Your task to perform on an android device: Go to Google maps Image 0: 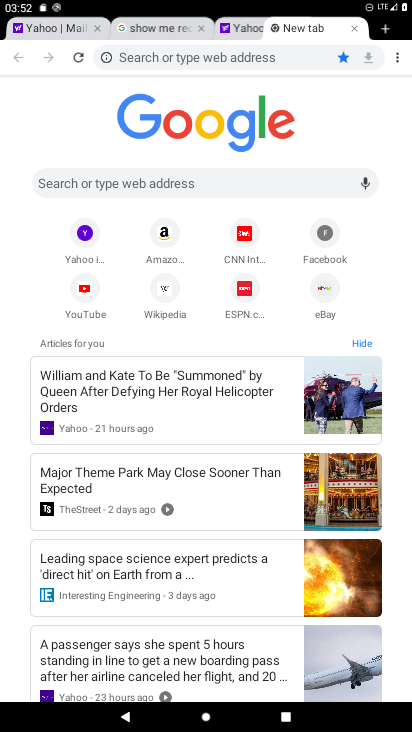
Step 0: press home button
Your task to perform on an android device: Go to Google maps Image 1: 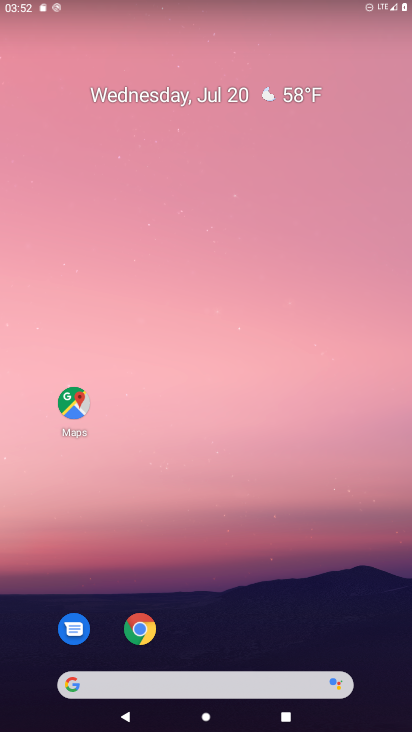
Step 1: drag from (266, 603) to (250, 180)
Your task to perform on an android device: Go to Google maps Image 2: 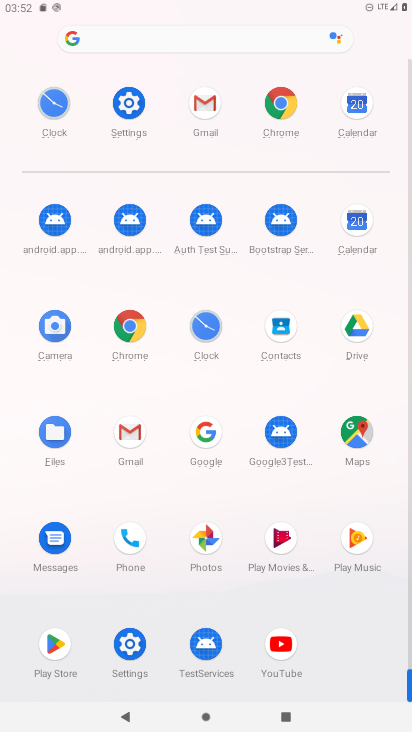
Step 2: click (198, 414)
Your task to perform on an android device: Go to Google maps Image 3: 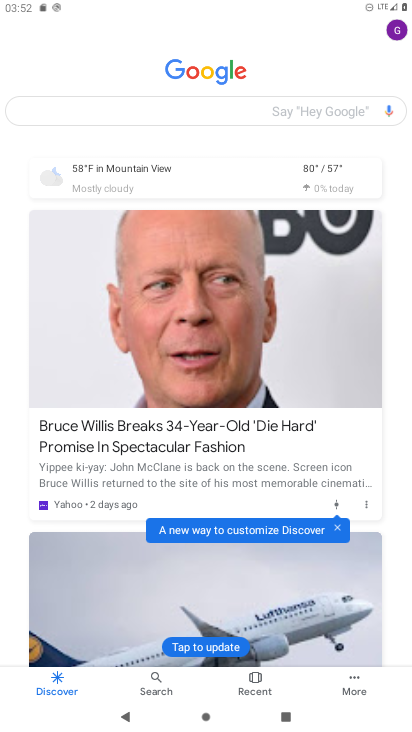
Step 3: press home button
Your task to perform on an android device: Go to Google maps Image 4: 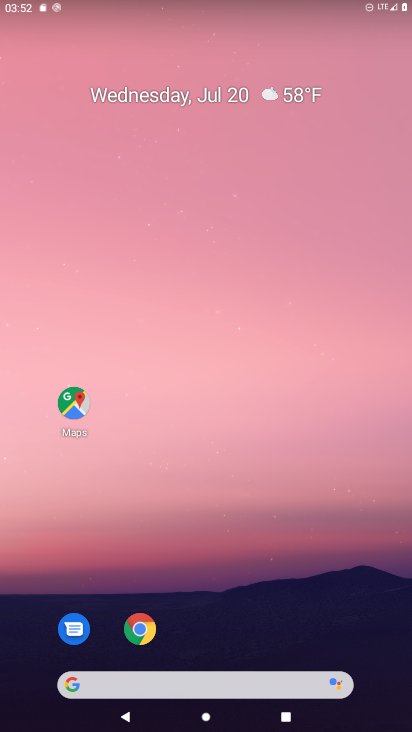
Step 4: drag from (285, 549) to (205, 1)
Your task to perform on an android device: Go to Google maps Image 5: 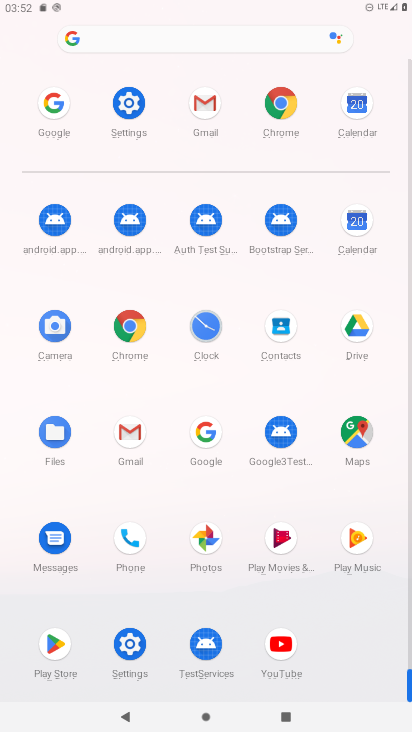
Step 5: click (359, 425)
Your task to perform on an android device: Go to Google maps Image 6: 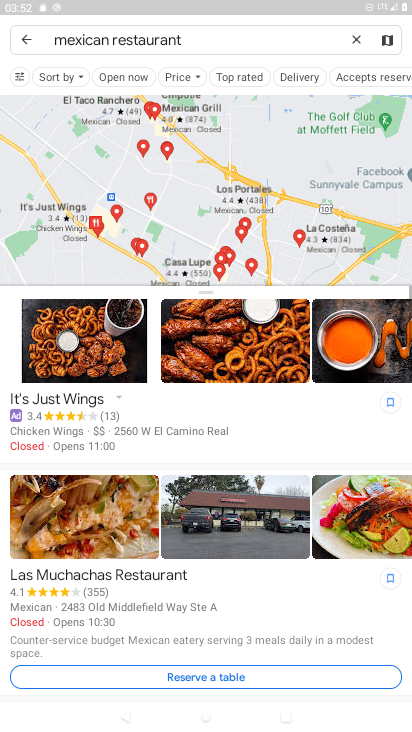
Step 6: click (23, 36)
Your task to perform on an android device: Go to Google maps Image 7: 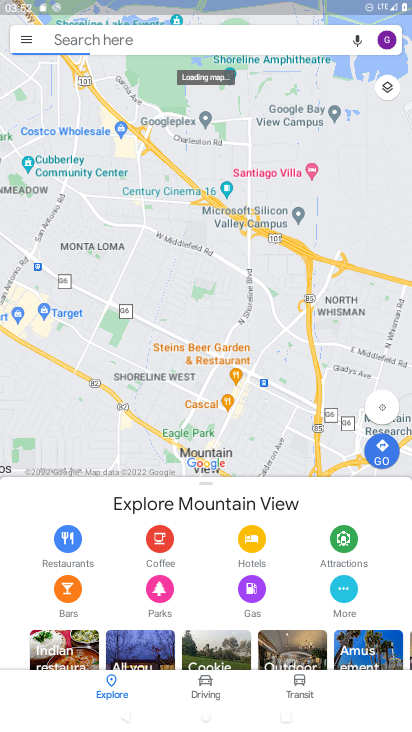
Step 7: task complete